Your task to perform on an android device: Do I have any events this weekend? Image 0: 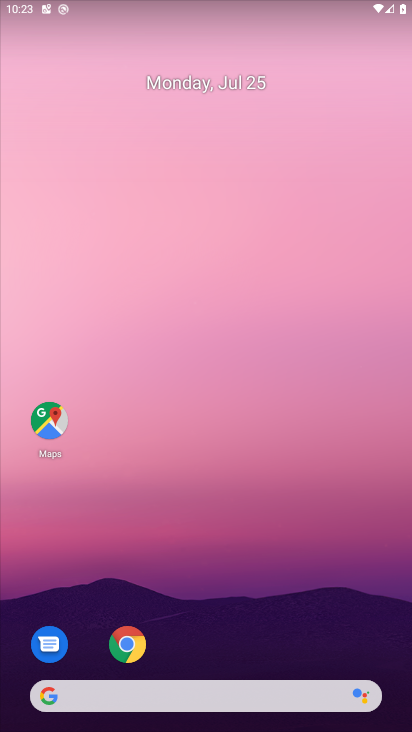
Step 0: press home button
Your task to perform on an android device: Do I have any events this weekend? Image 1: 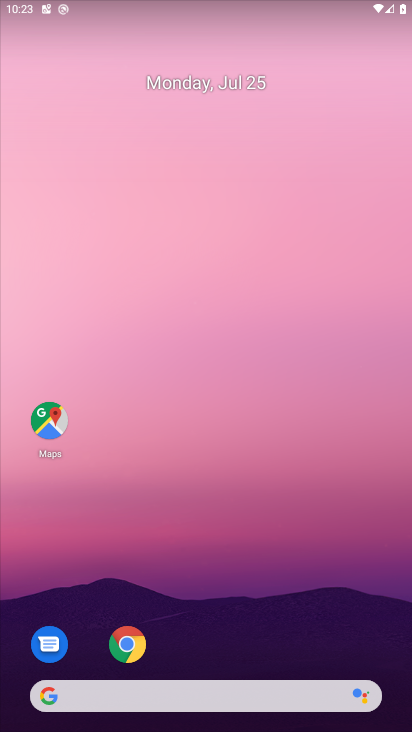
Step 1: drag from (224, 666) to (16, 479)
Your task to perform on an android device: Do I have any events this weekend? Image 2: 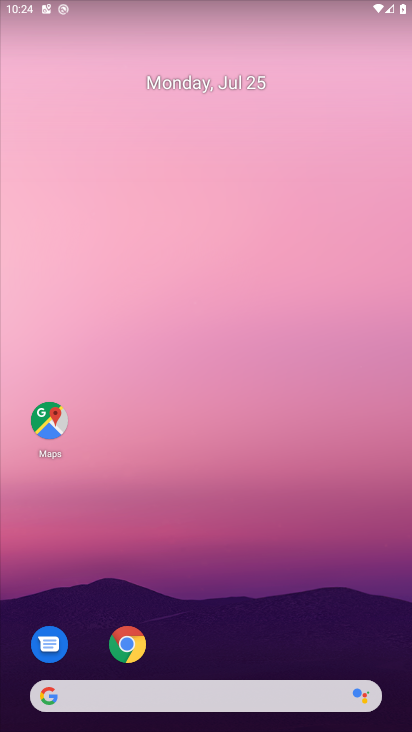
Step 2: drag from (278, 652) to (240, 169)
Your task to perform on an android device: Do I have any events this weekend? Image 3: 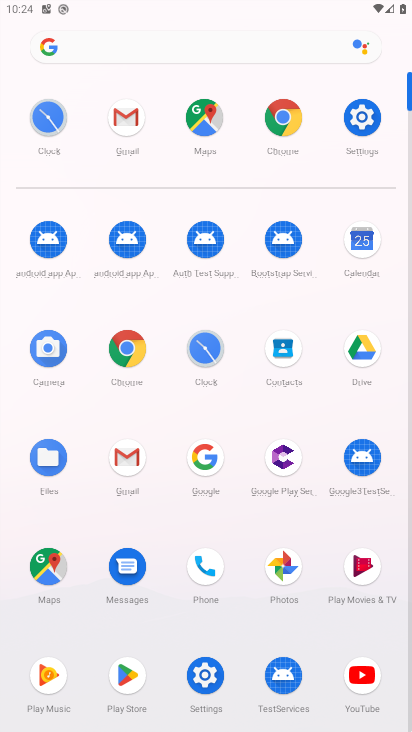
Step 3: click (352, 265)
Your task to perform on an android device: Do I have any events this weekend? Image 4: 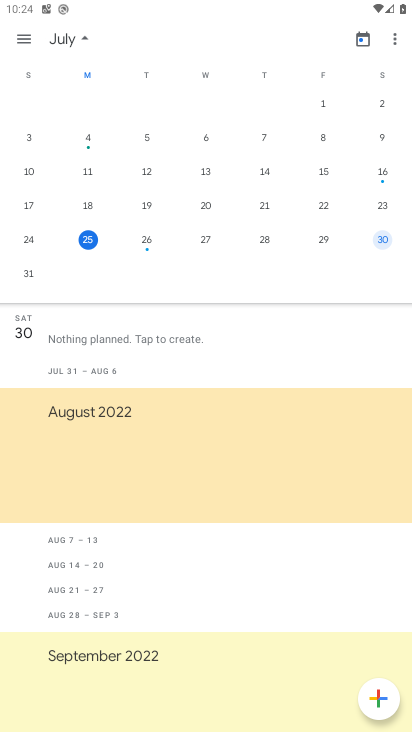
Step 4: click (16, 266)
Your task to perform on an android device: Do I have any events this weekend? Image 5: 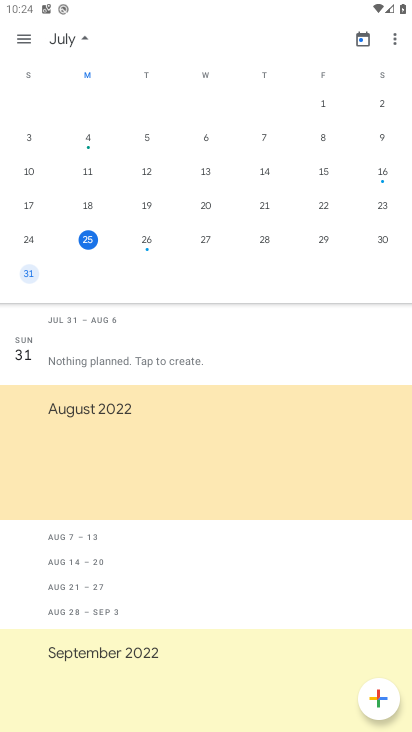
Step 5: task complete